Your task to perform on an android device: Open display settings Image 0: 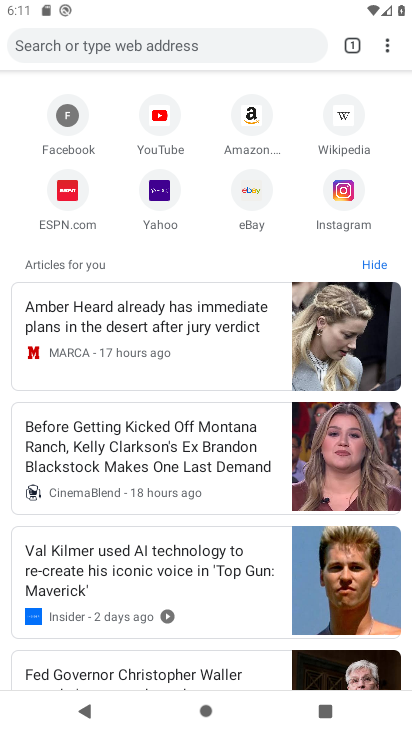
Step 0: press home button
Your task to perform on an android device: Open display settings Image 1: 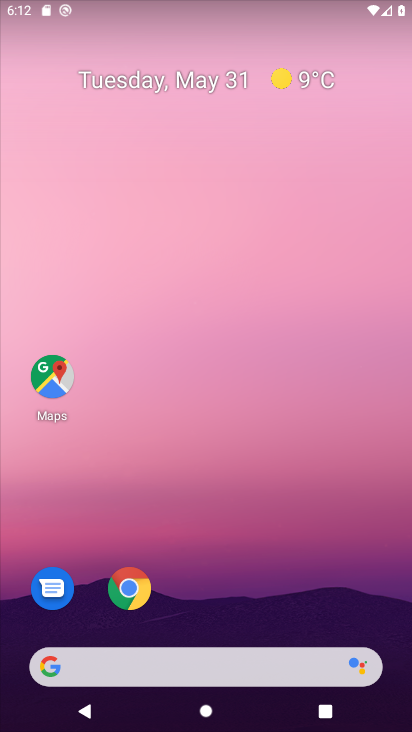
Step 1: drag from (226, 590) to (229, 266)
Your task to perform on an android device: Open display settings Image 2: 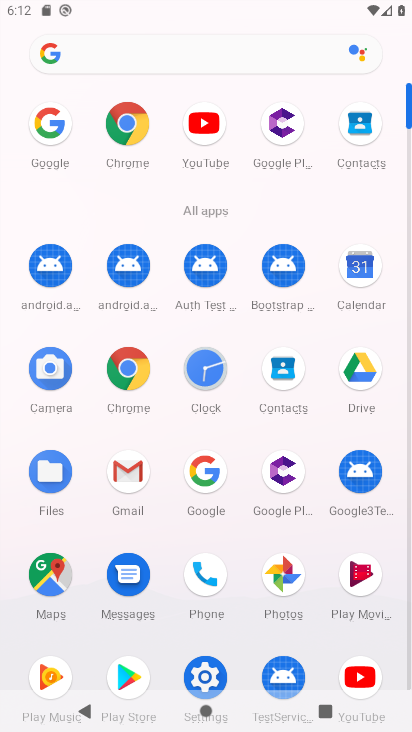
Step 2: click (207, 672)
Your task to perform on an android device: Open display settings Image 3: 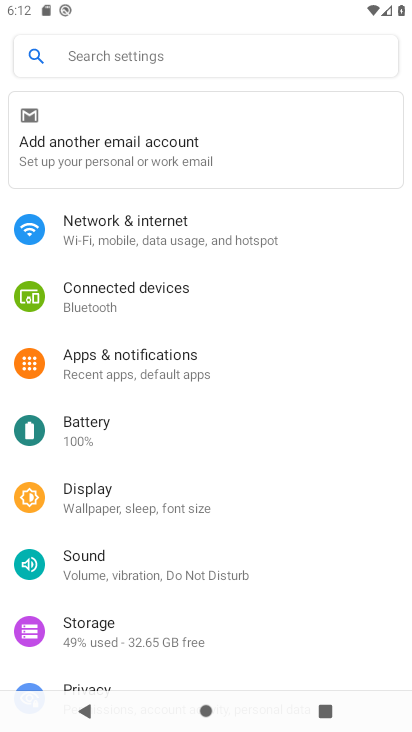
Step 3: click (111, 504)
Your task to perform on an android device: Open display settings Image 4: 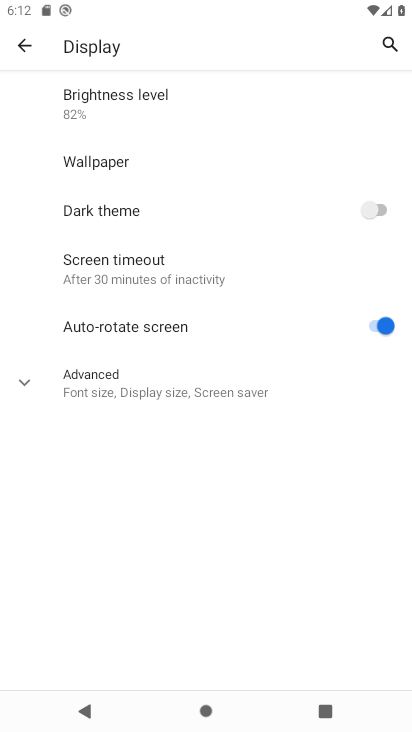
Step 4: task complete